Your task to perform on an android device: Look up the top rated headphones on Amazon. Image 0: 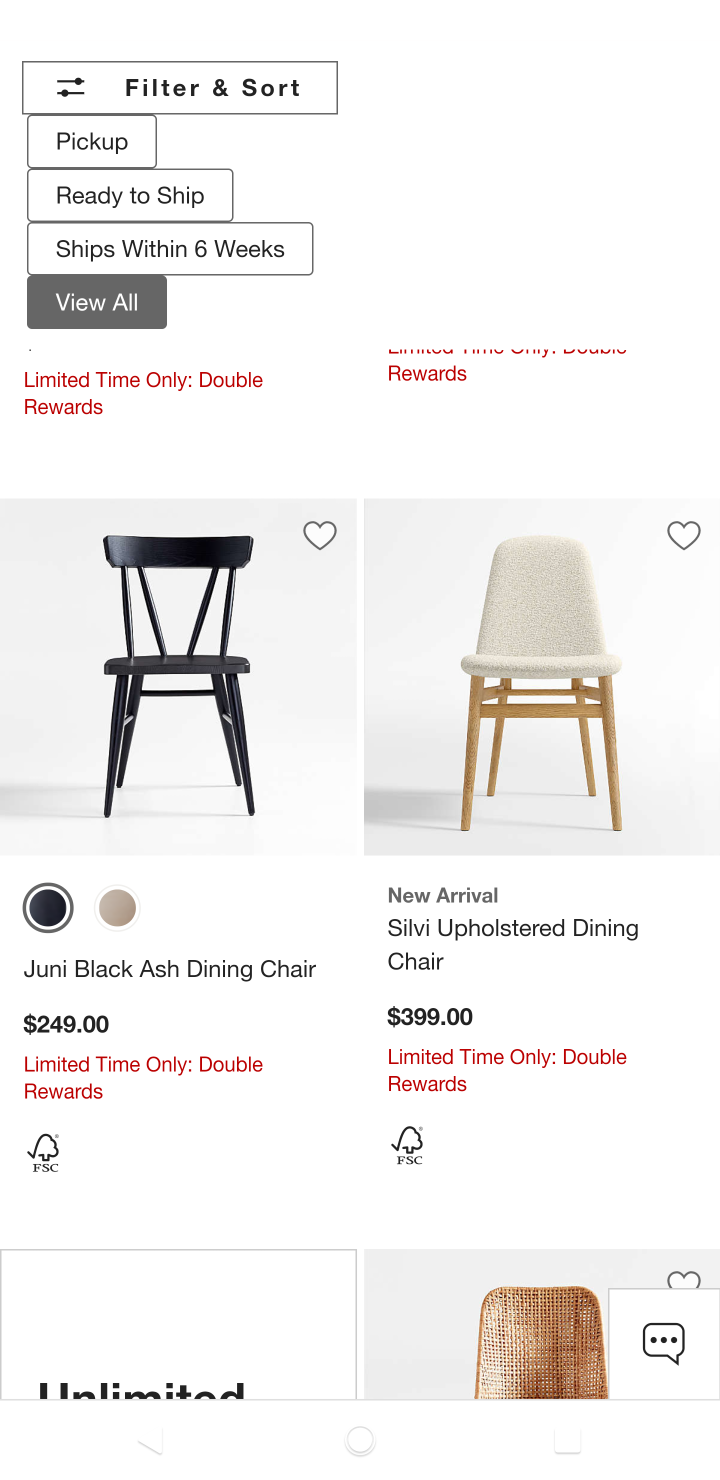
Step 0: press home button
Your task to perform on an android device: Look up the top rated headphones on Amazon. Image 1: 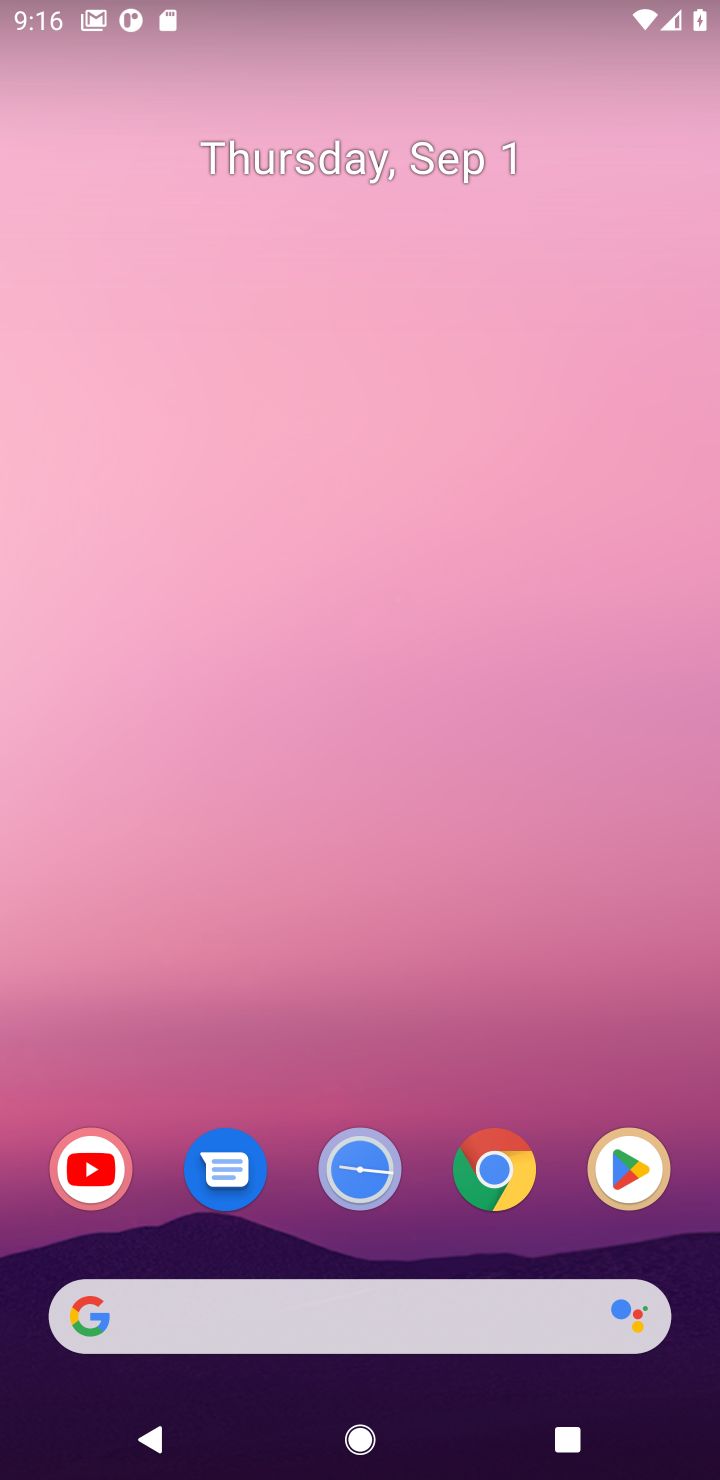
Step 1: drag from (423, 1137) to (440, 0)
Your task to perform on an android device: Look up the top rated headphones on Amazon. Image 2: 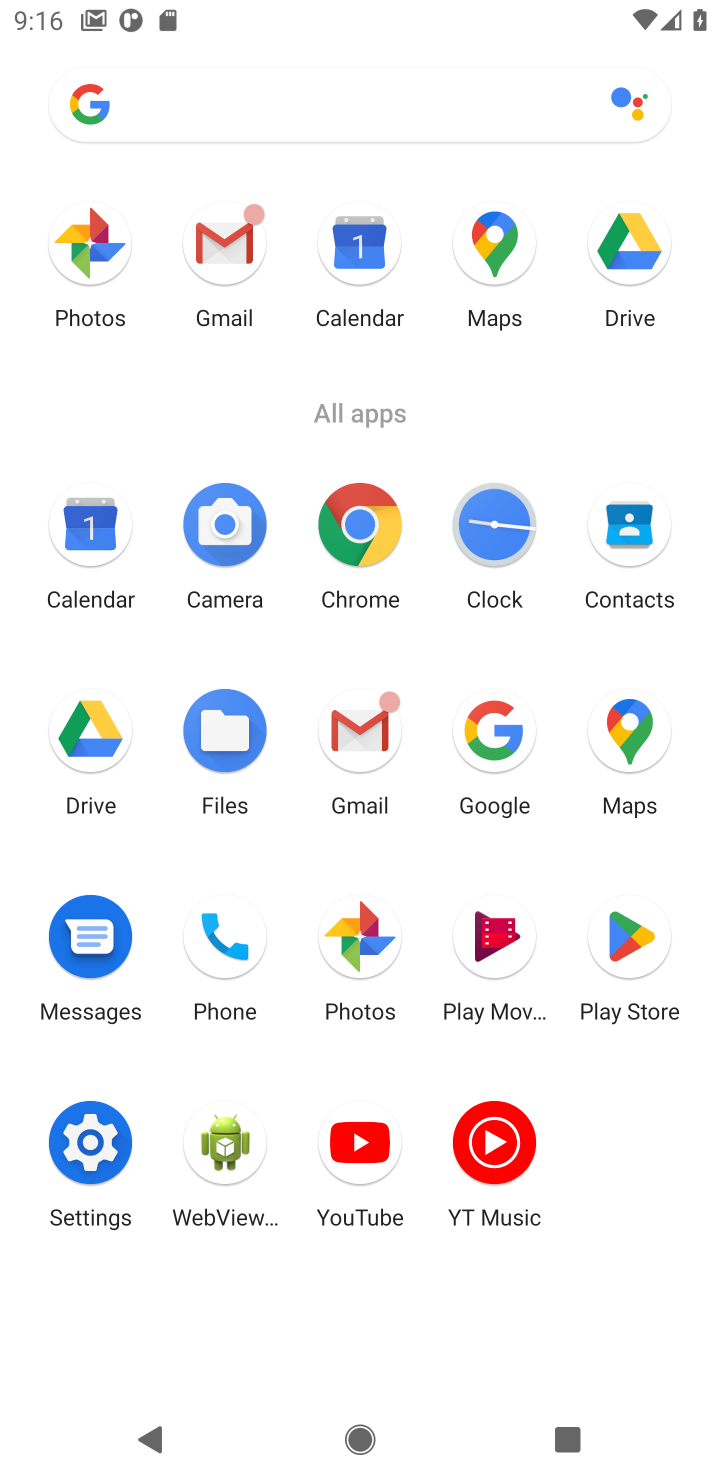
Step 2: click (357, 522)
Your task to perform on an android device: Look up the top rated headphones on Amazon. Image 3: 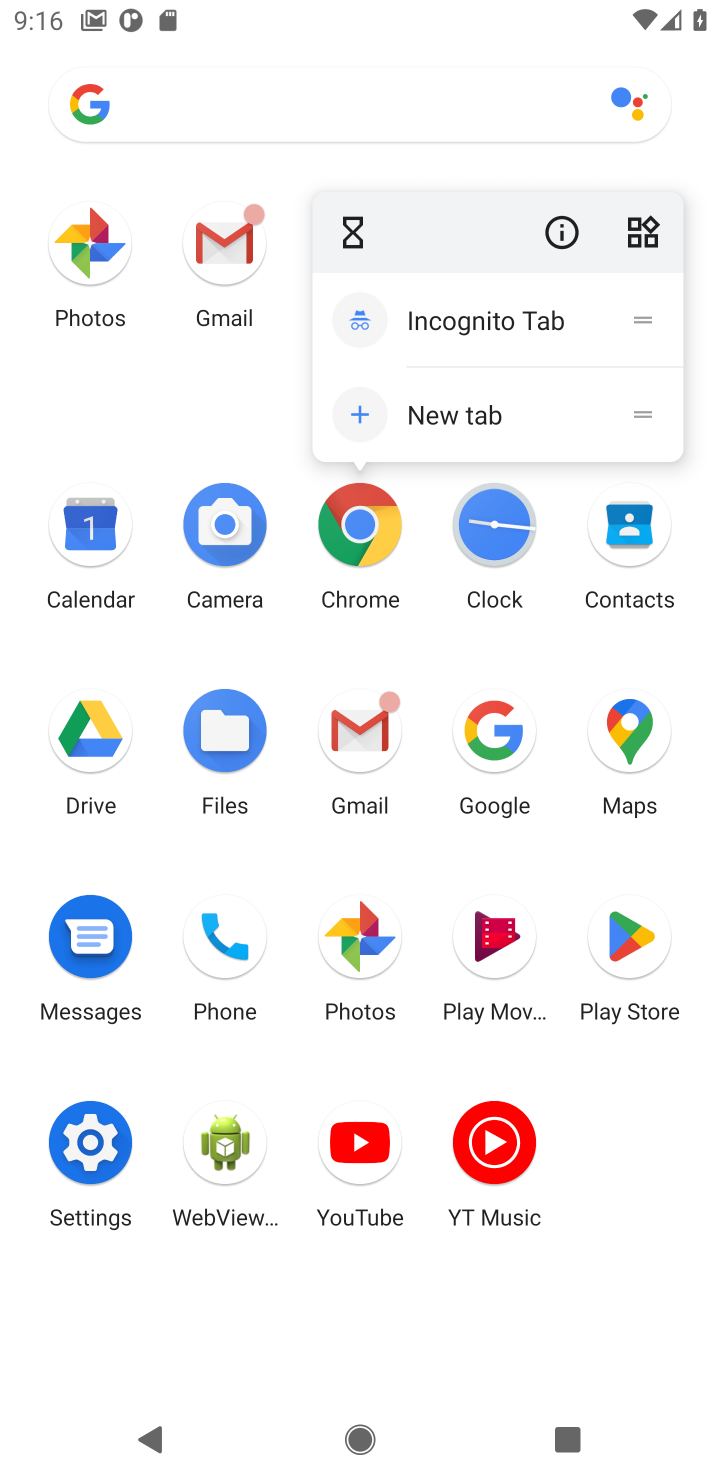
Step 3: click (361, 515)
Your task to perform on an android device: Look up the top rated headphones on Amazon. Image 4: 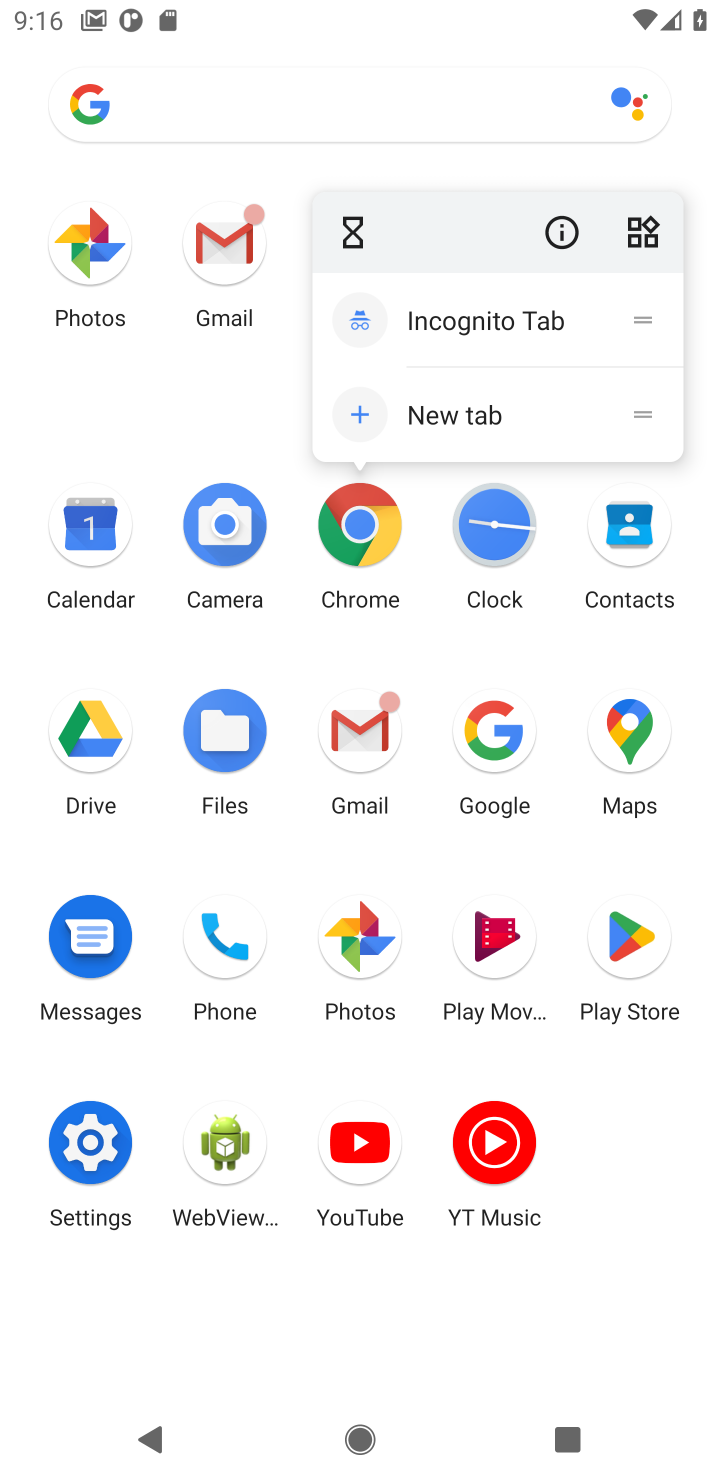
Step 4: click (361, 515)
Your task to perform on an android device: Look up the top rated headphones on Amazon. Image 5: 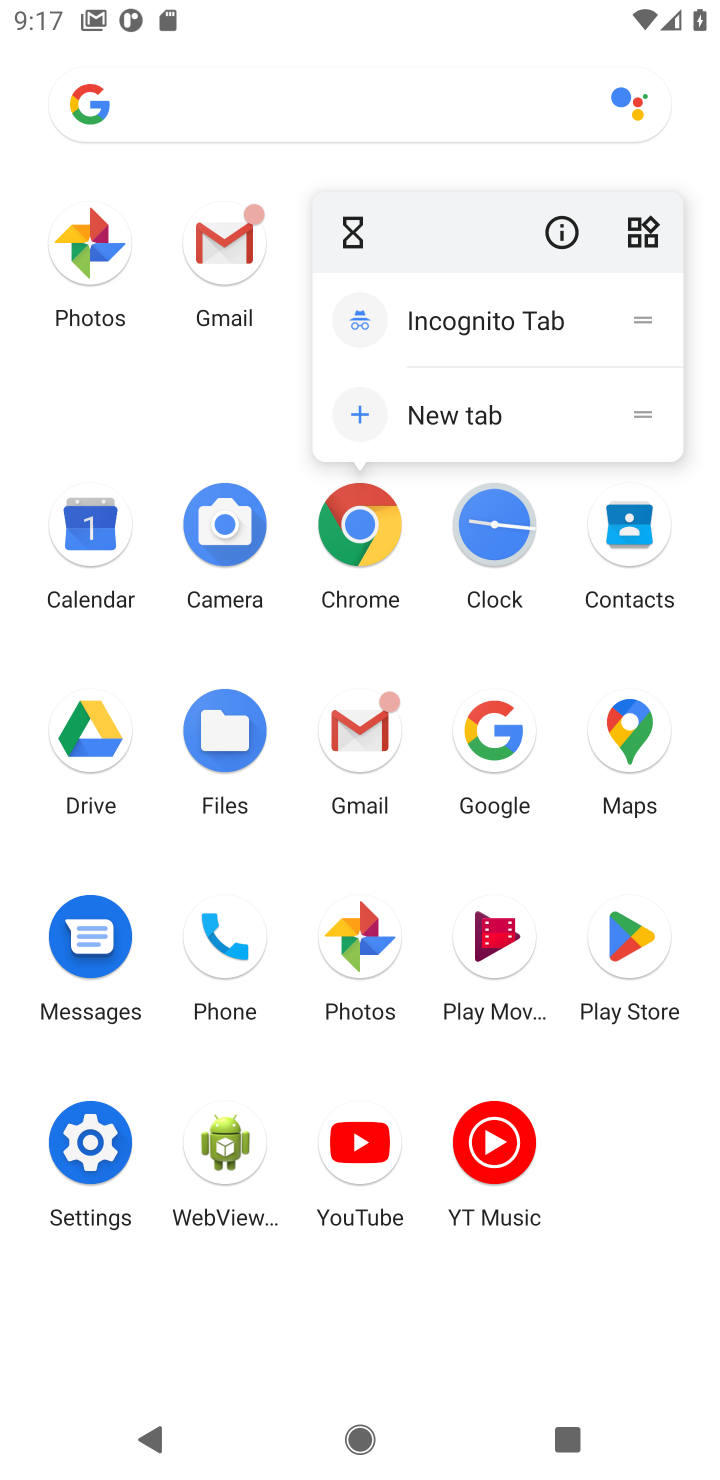
Step 5: click (608, 1307)
Your task to perform on an android device: Look up the top rated headphones on Amazon. Image 6: 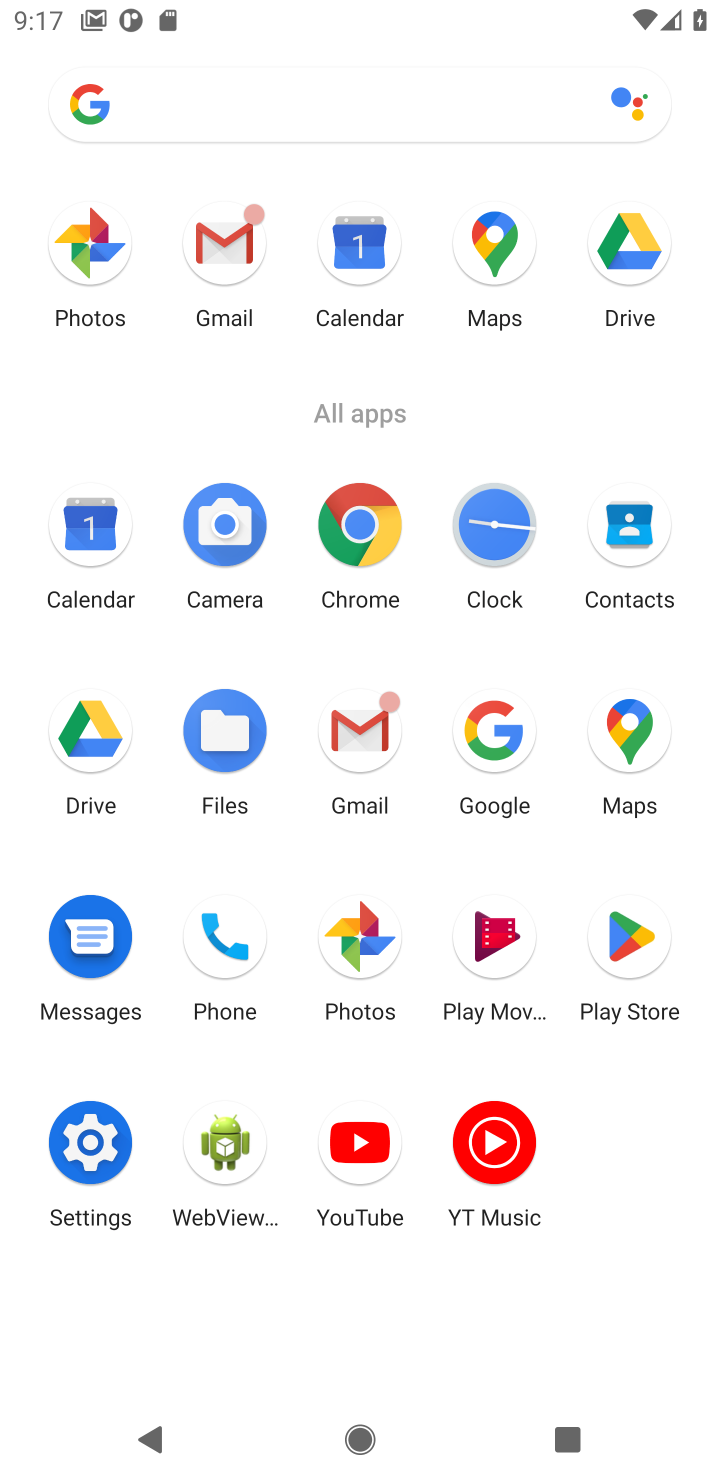
Step 6: click (357, 520)
Your task to perform on an android device: Look up the top rated headphones on Amazon. Image 7: 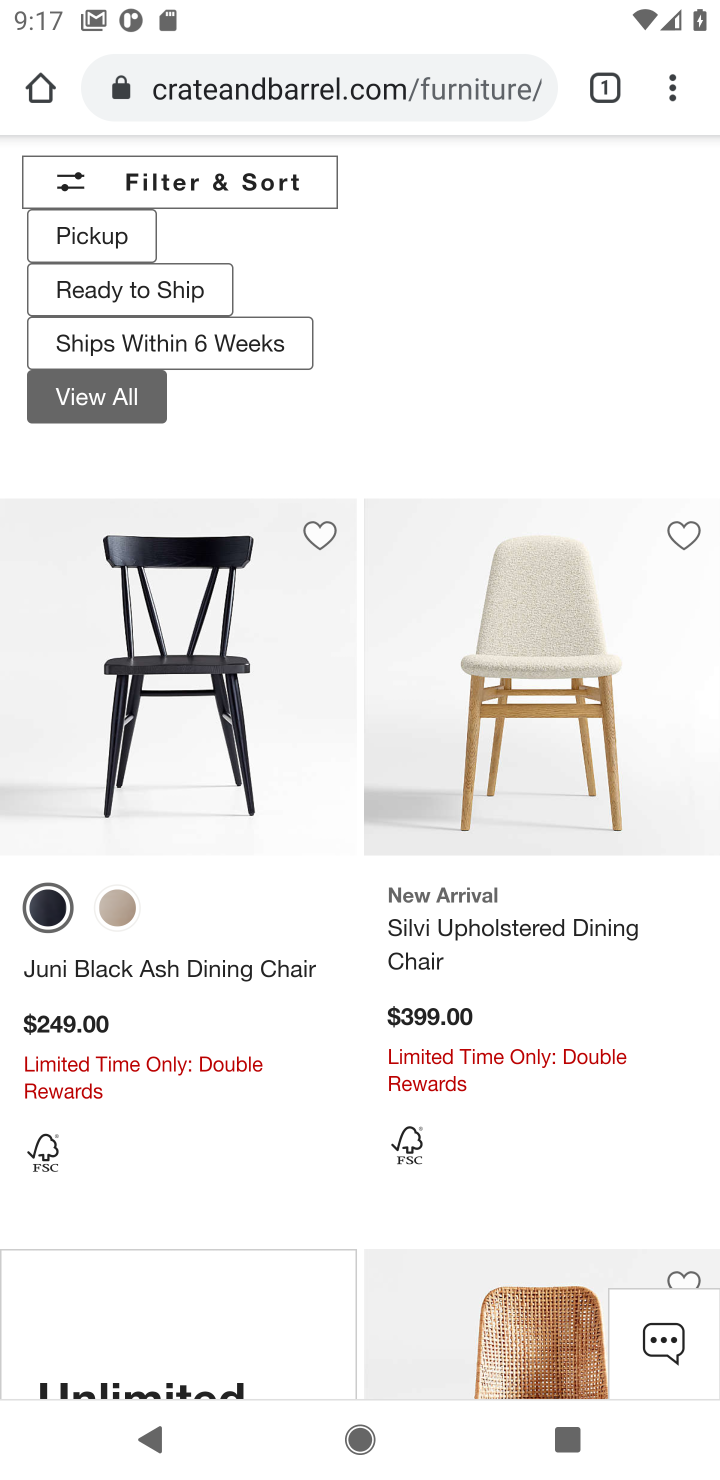
Step 7: click (400, 81)
Your task to perform on an android device: Look up the top rated headphones on Amazon. Image 8: 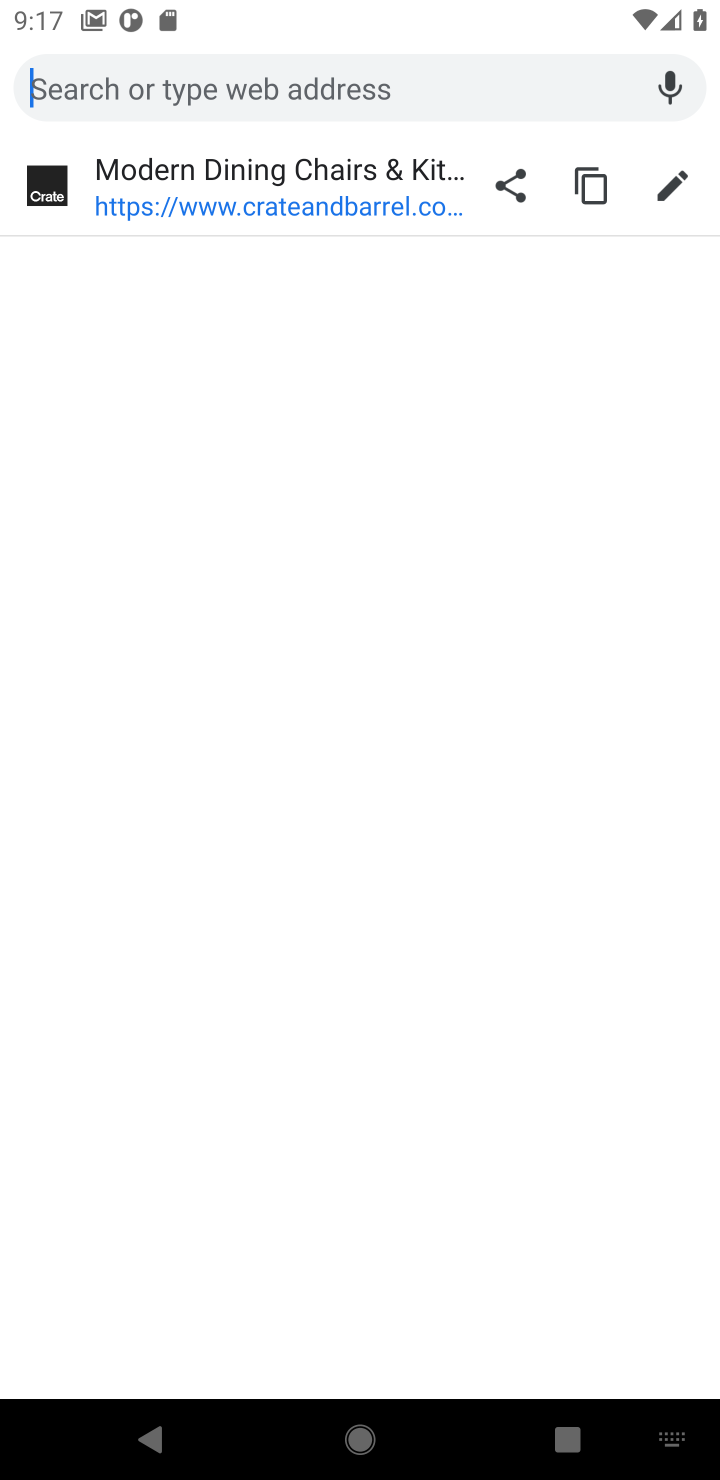
Step 8: type "top rated headphones on Amazon"
Your task to perform on an android device: Look up the top rated headphones on Amazon. Image 9: 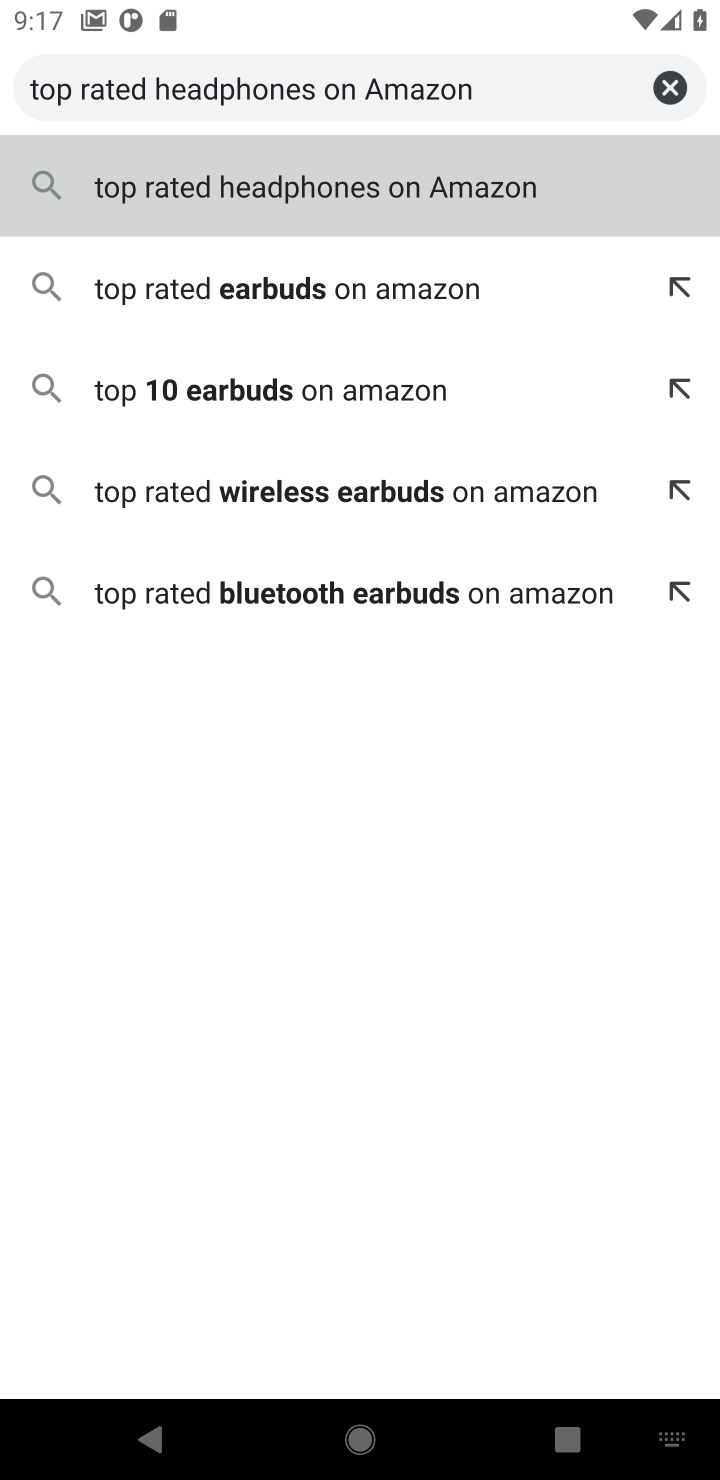
Step 9: click (352, 199)
Your task to perform on an android device: Look up the top rated headphones on Amazon. Image 10: 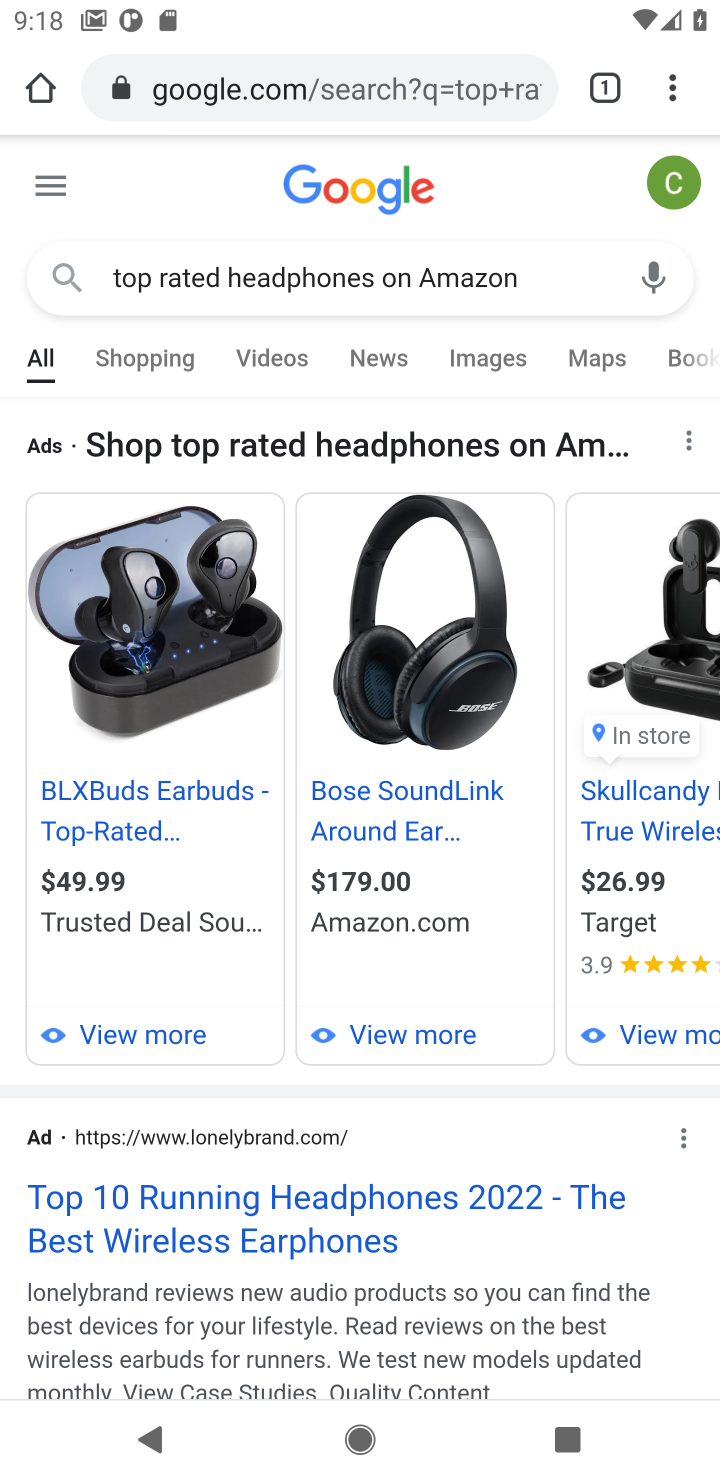
Step 10: drag from (406, 1161) to (415, 593)
Your task to perform on an android device: Look up the top rated headphones on Amazon. Image 11: 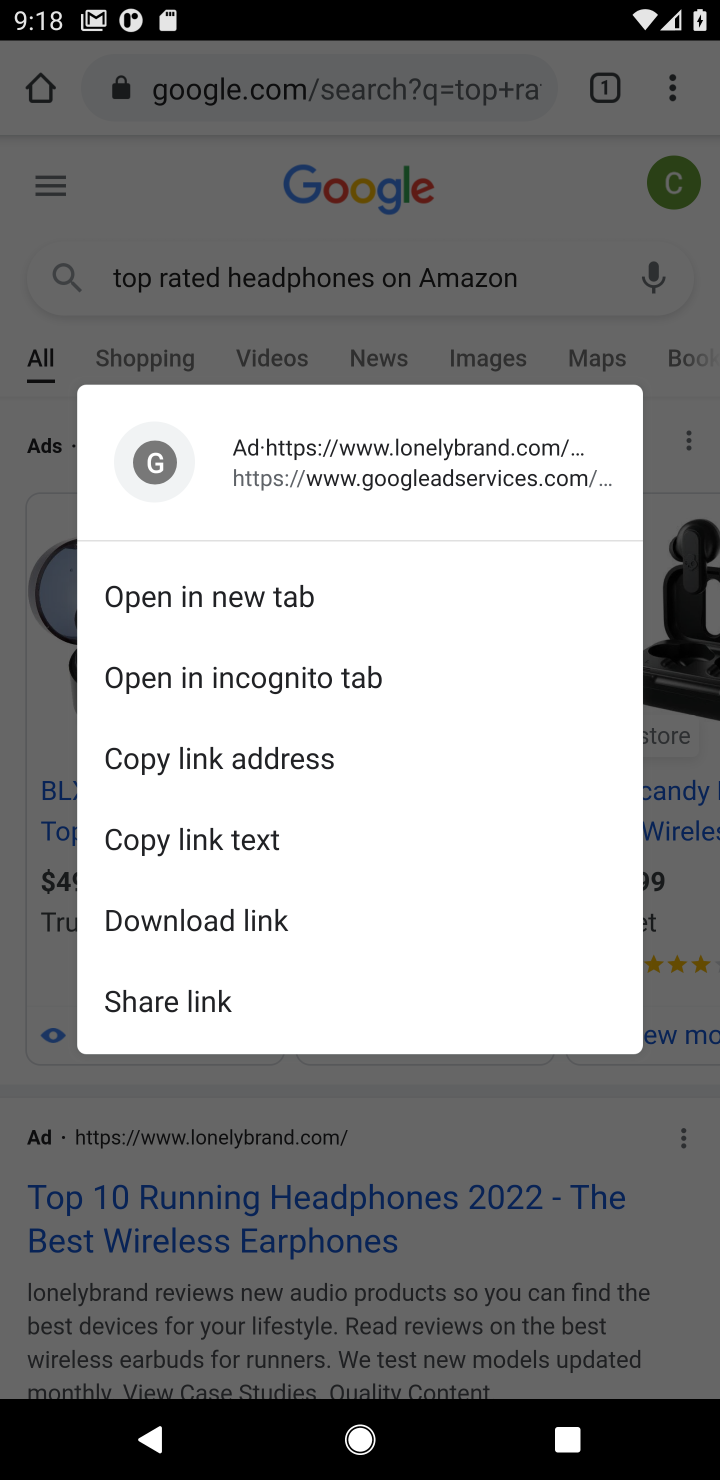
Step 11: click (373, 1180)
Your task to perform on an android device: Look up the top rated headphones on Amazon. Image 12: 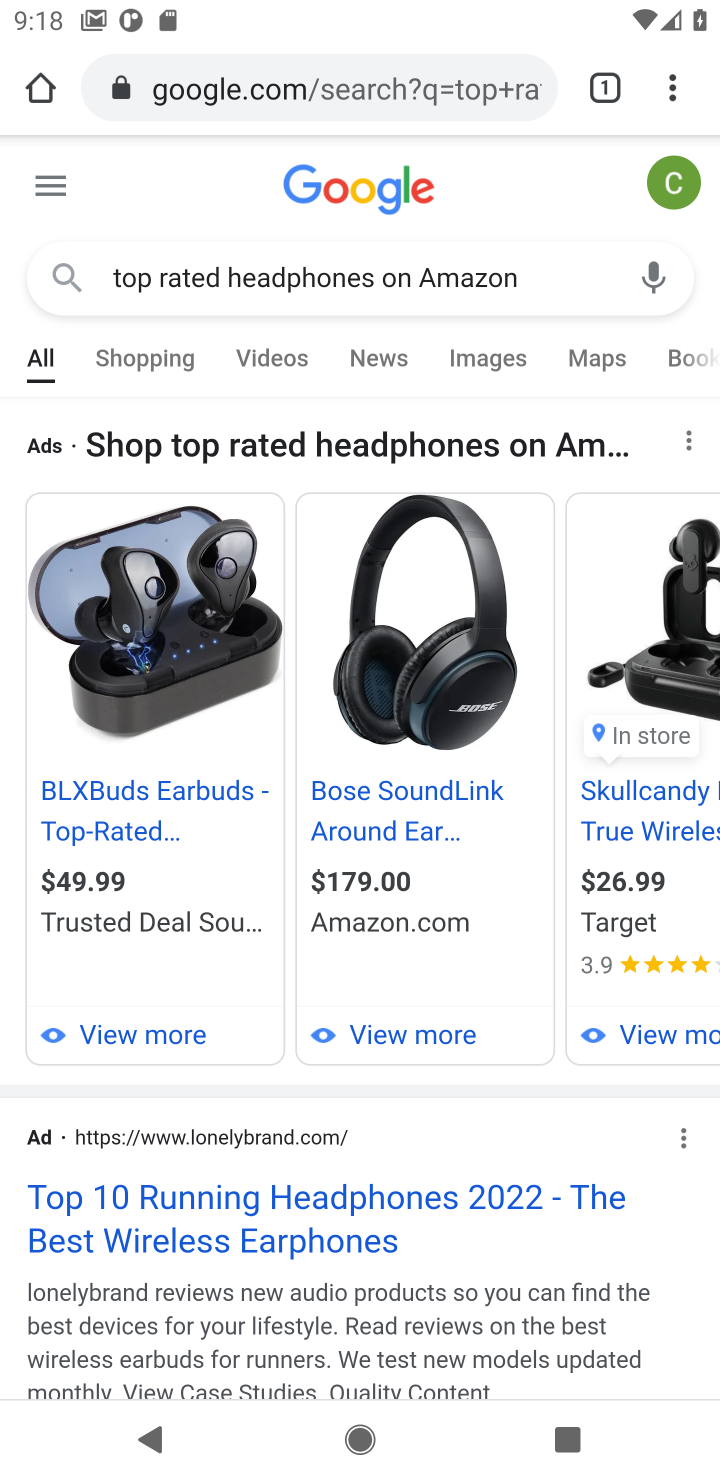
Step 12: drag from (486, 1347) to (539, 346)
Your task to perform on an android device: Look up the top rated headphones on Amazon. Image 13: 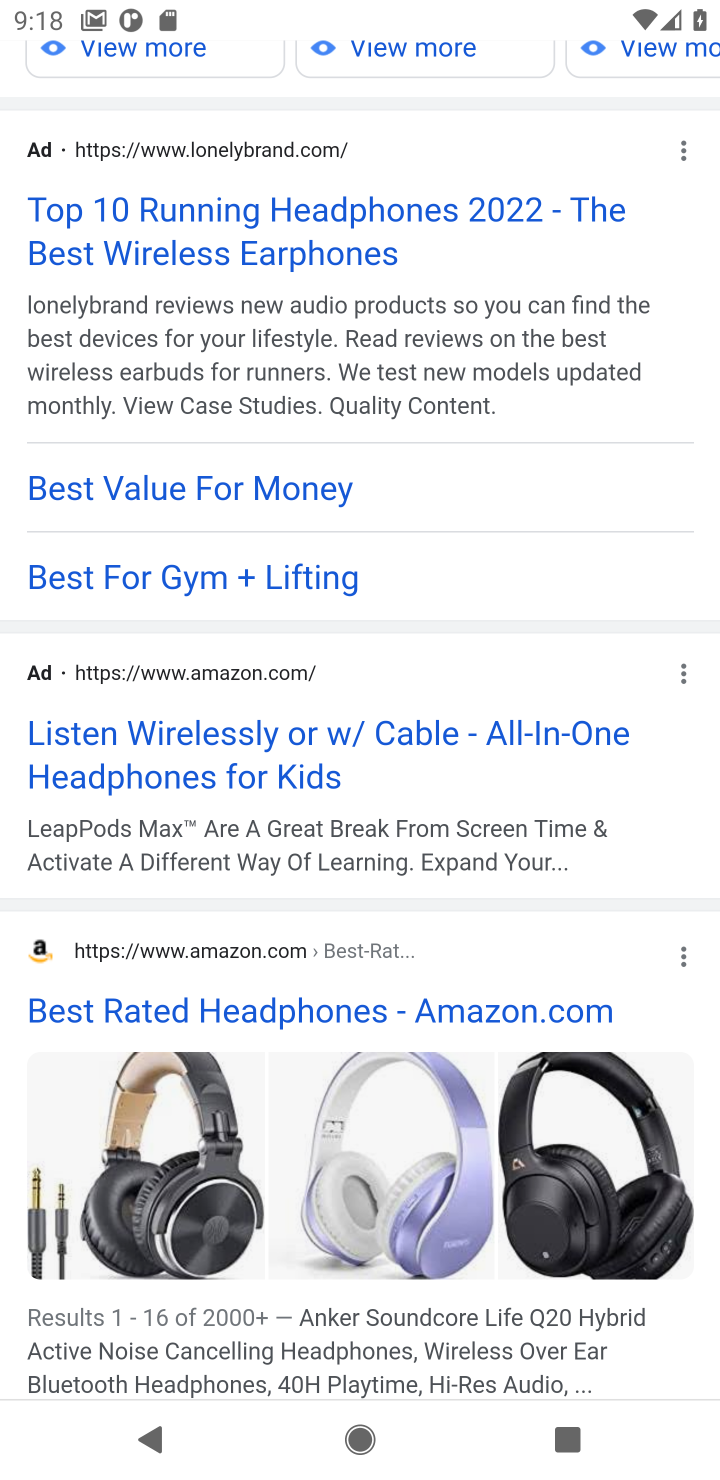
Step 13: click (274, 1016)
Your task to perform on an android device: Look up the top rated headphones on Amazon. Image 14: 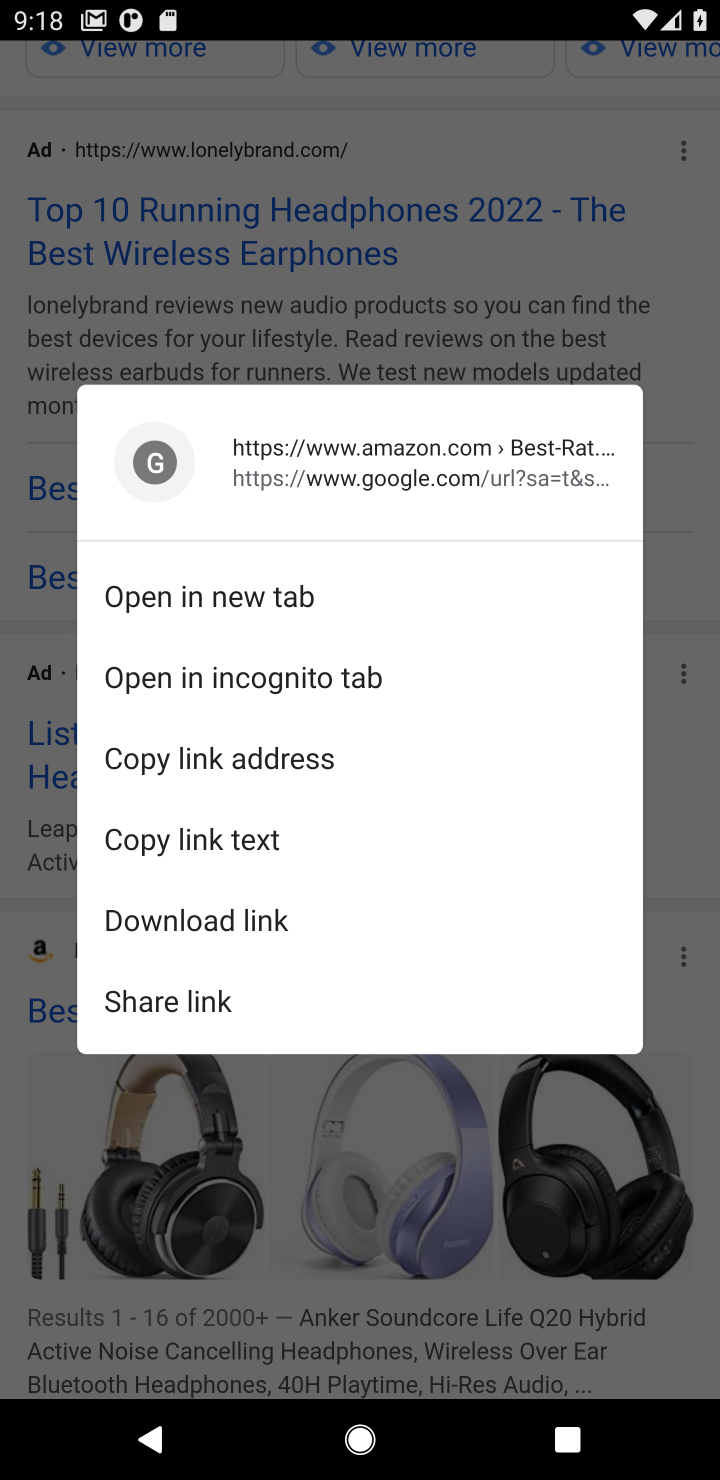
Step 14: click (295, 1221)
Your task to perform on an android device: Look up the top rated headphones on Amazon. Image 15: 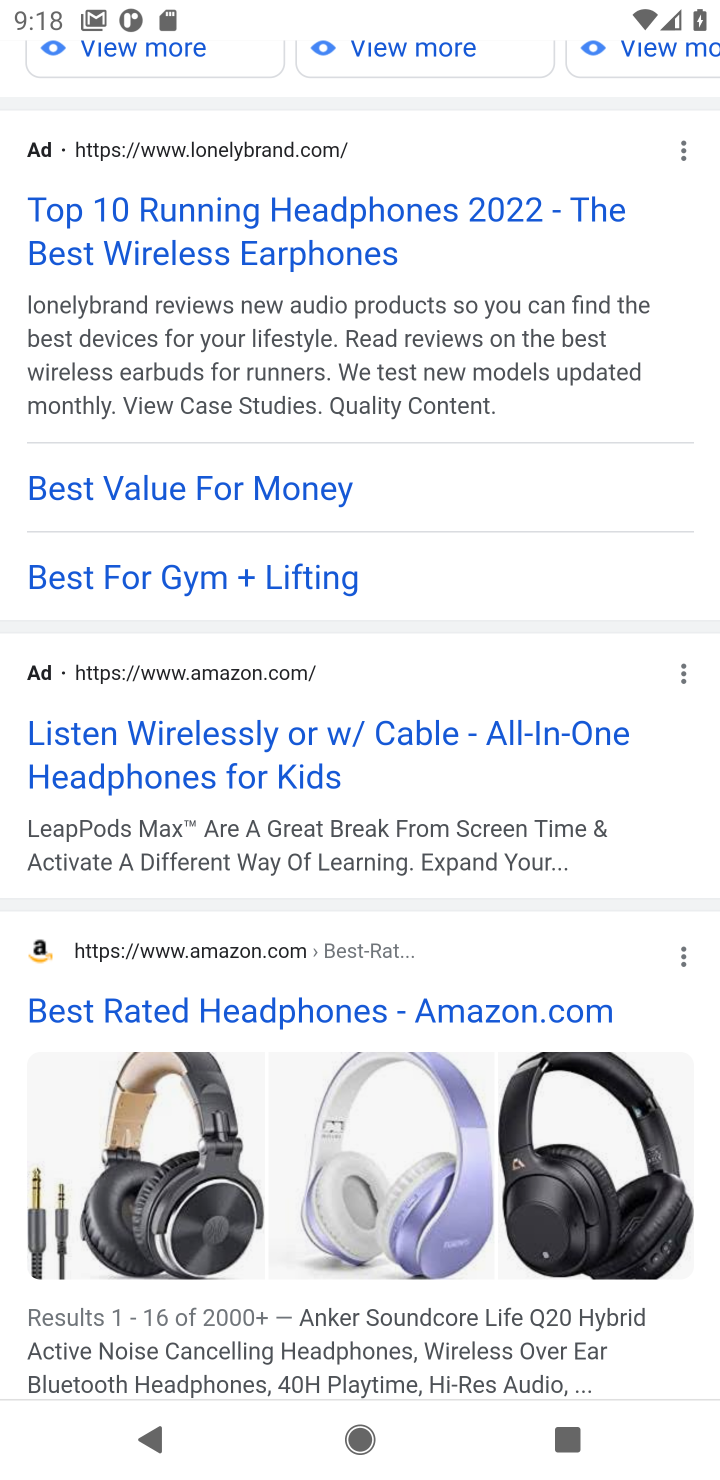
Step 15: click (175, 1012)
Your task to perform on an android device: Look up the top rated headphones on Amazon. Image 16: 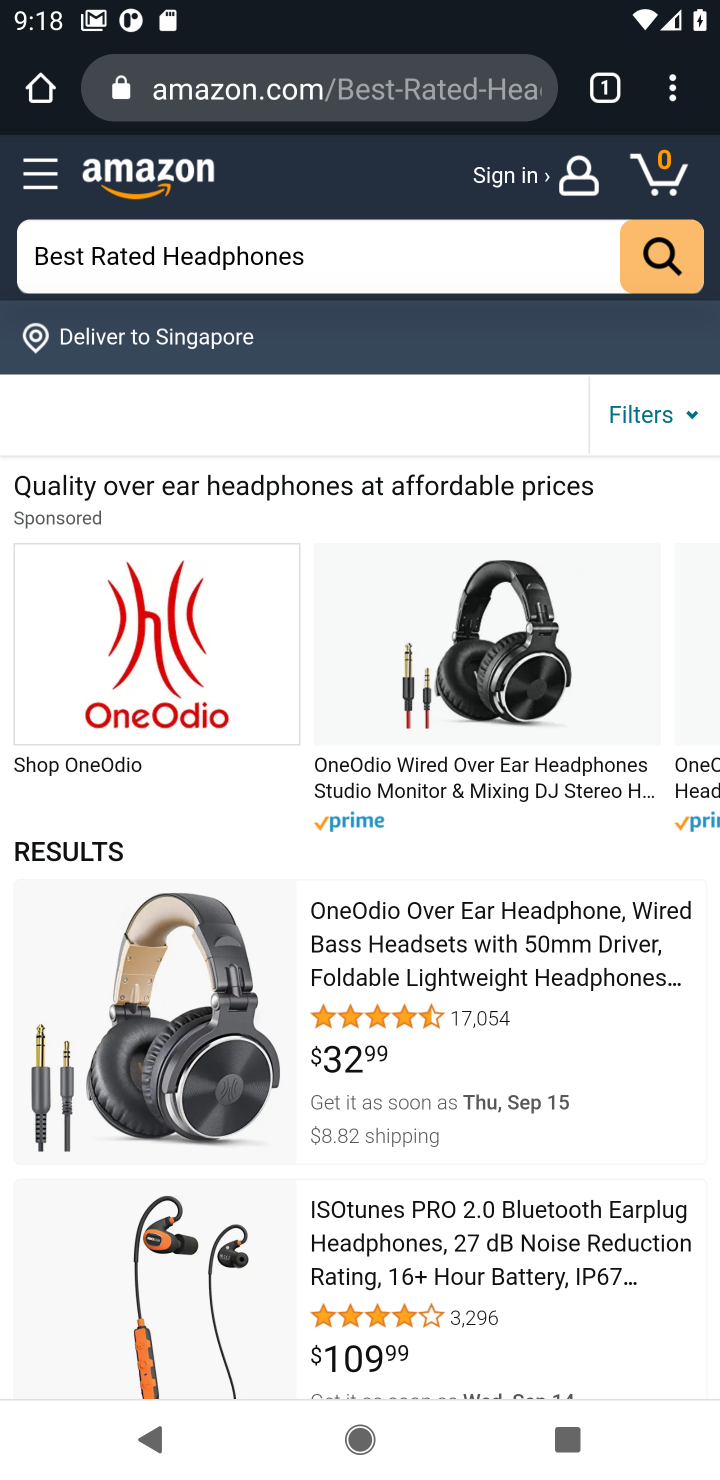
Step 16: task complete